Your task to perform on an android device: turn pop-ups on in chrome Image 0: 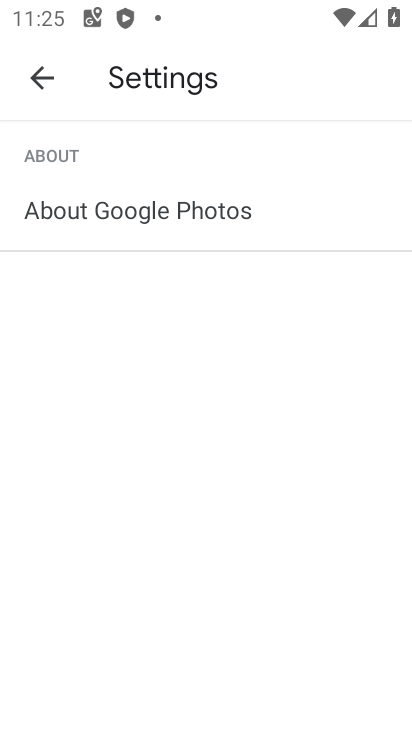
Step 0: press home button
Your task to perform on an android device: turn pop-ups on in chrome Image 1: 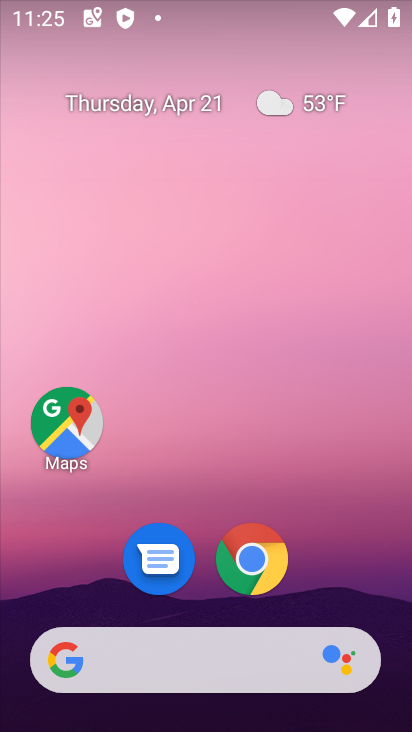
Step 1: click (257, 563)
Your task to perform on an android device: turn pop-ups on in chrome Image 2: 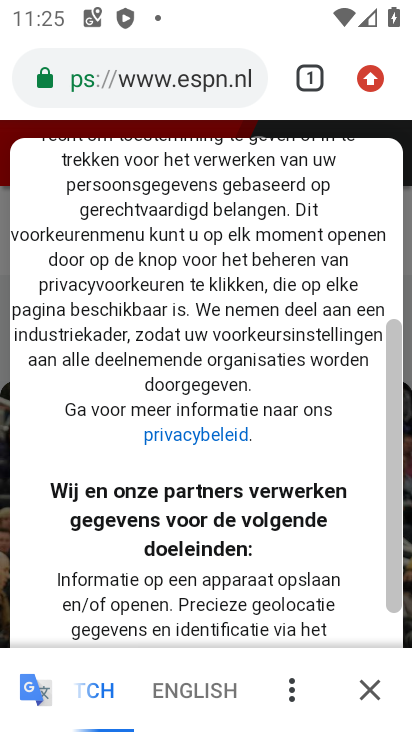
Step 2: click (360, 78)
Your task to perform on an android device: turn pop-ups on in chrome Image 3: 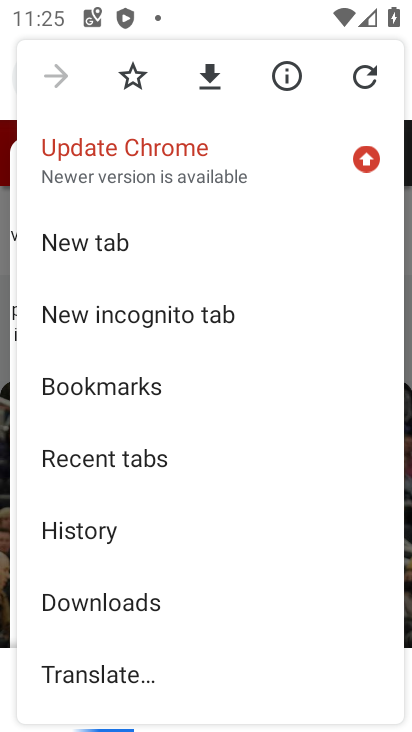
Step 3: drag from (198, 656) to (213, 180)
Your task to perform on an android device: turn pop-ups on in chrome Image 4: 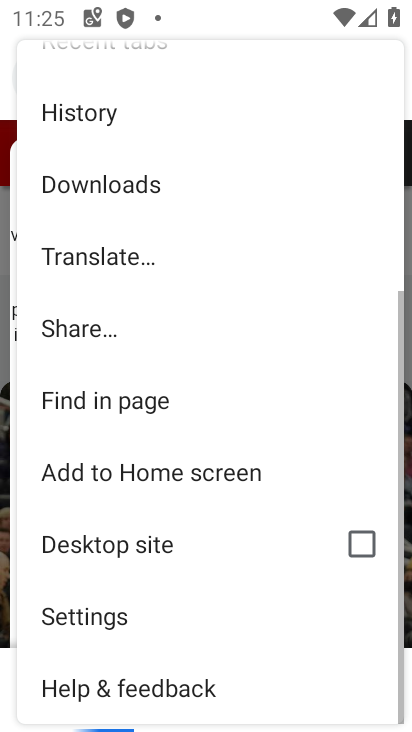
Step 4: drag from (237, 527) to (243, 196)
Your task to perform on an android device: turn pop-ups on in chrome Image 5: 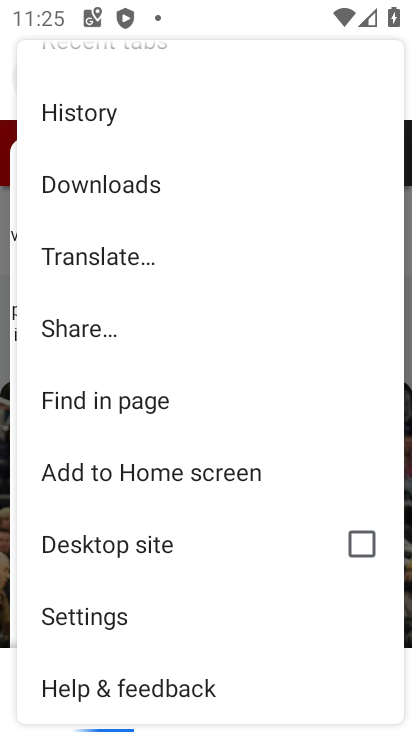
Step 5: click (116, 611)
Your task to perform on an android device: turn pop-ups on in chrome Image 6: 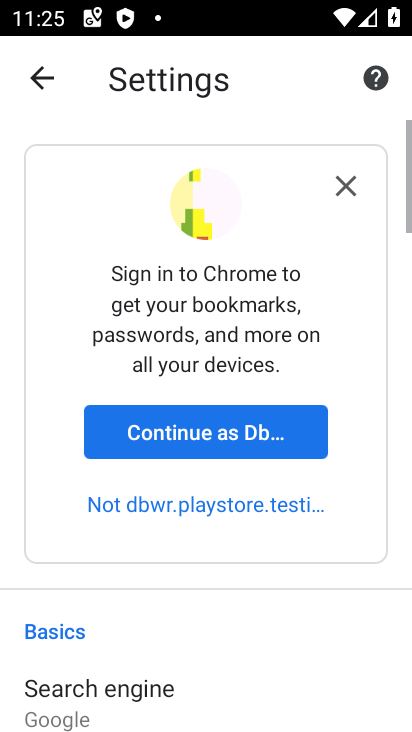
Step 6: drag from (199, 641) to (135, 27)
Your task to perform on an android device: turn pop-ups on in chrome Image 7: 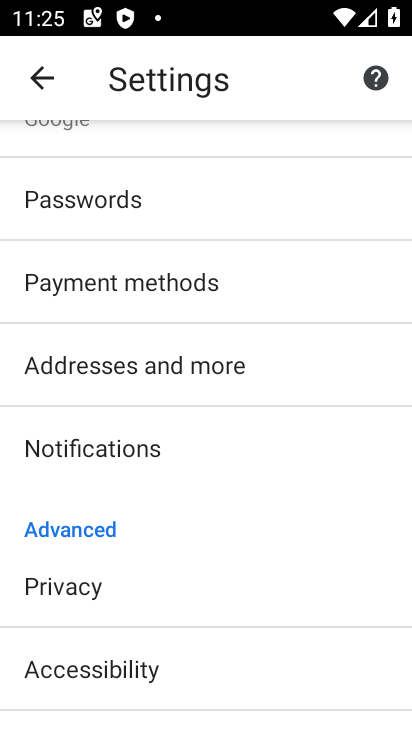
Step 7: drag from (151, 549) to (146, 207)
Your task to perform on an android device: turn pop-ups on in chrome Image 8: 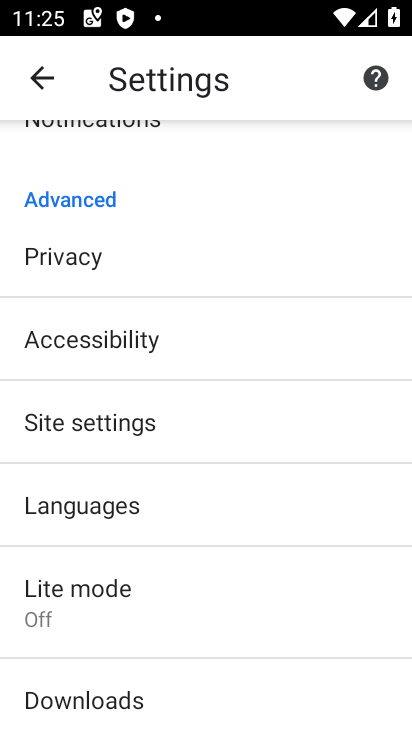
Step 8: click (107, 429)
Your task to perform on an android device: turn pop-ups on in chrome Image 9: 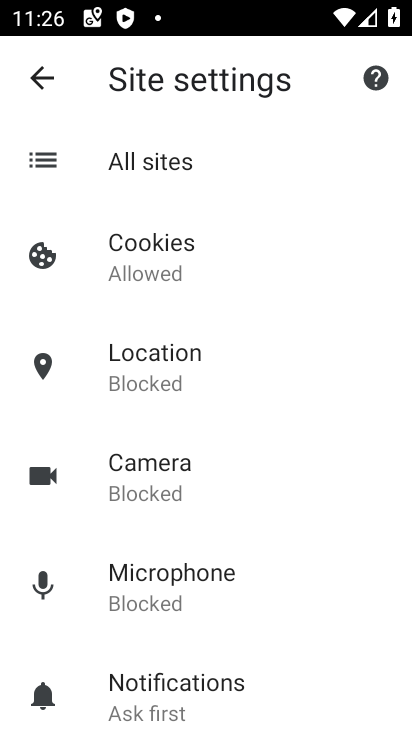
Step 9: drag from (321, 639) to (281, 164)
Your task to perform on an android device: turn pop-ups on in chrome Image 10: 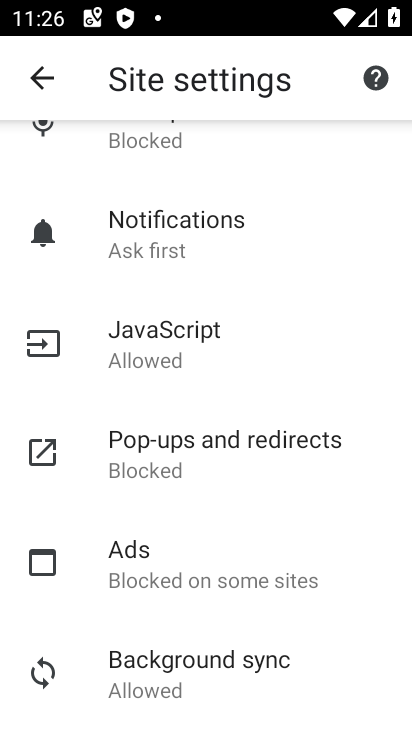
Step 10: click (190, 461)
Your task to perform on an android device: turn pop-ups on in chrome Image 11: 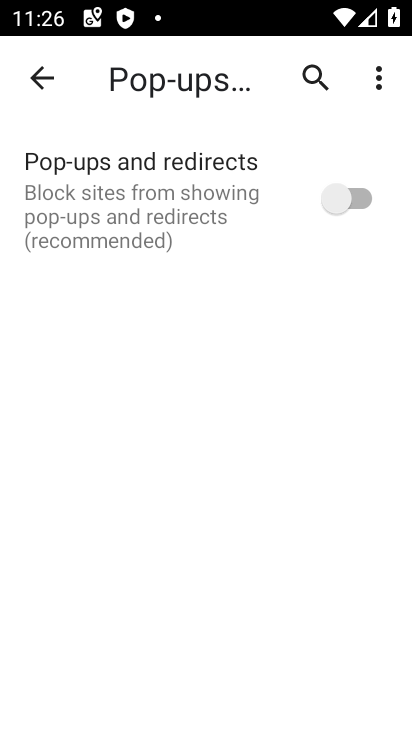
Step 11: click (341, 195)
Your task to perform on an android device: turn pop-ups on in chrome Image 12: 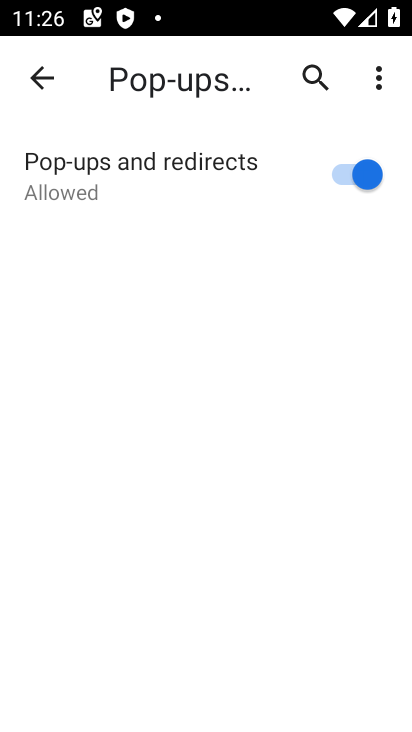
Step 12: task complete